Your task to perform on an android device: Check the news Image 0: 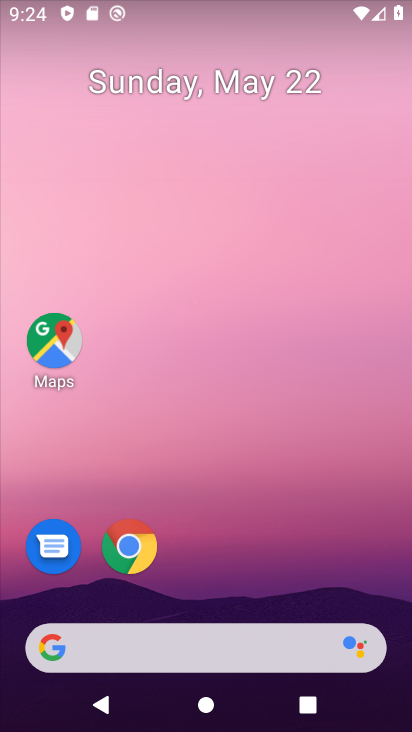
Step 0: click (226, 648)
Your task to perform on an android device: Check the news Image 1: 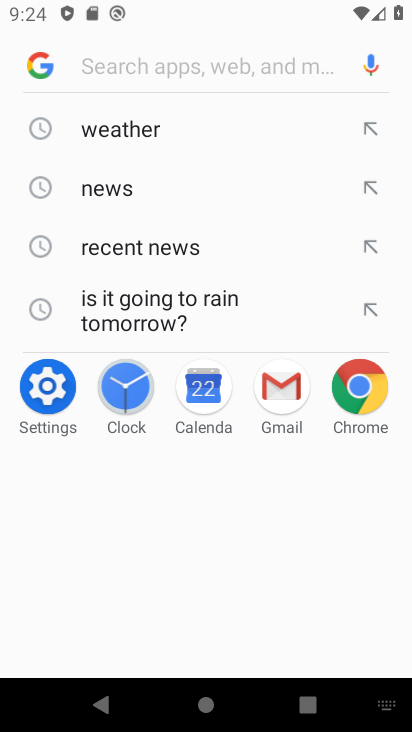
Step 1: click (218, 184)
Your task to perform on an android device: Check the news Image 2: 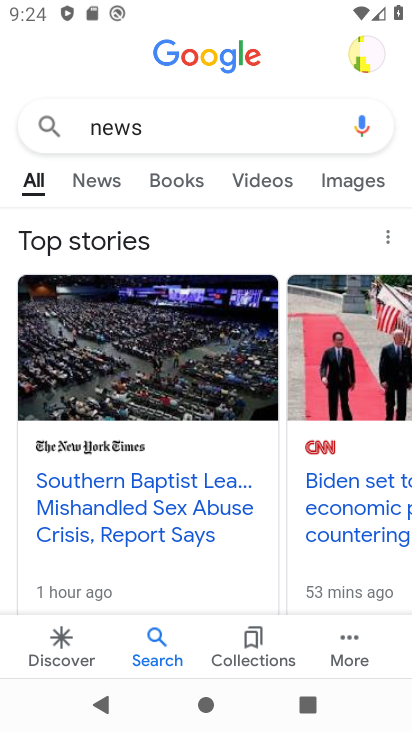
Step 2: task complete